Your task to perform on an android device: Show the shopping cart on walmart.com. Search for razer thresher on walmart.com, select the first entry, and add it to the cart. Image 0: 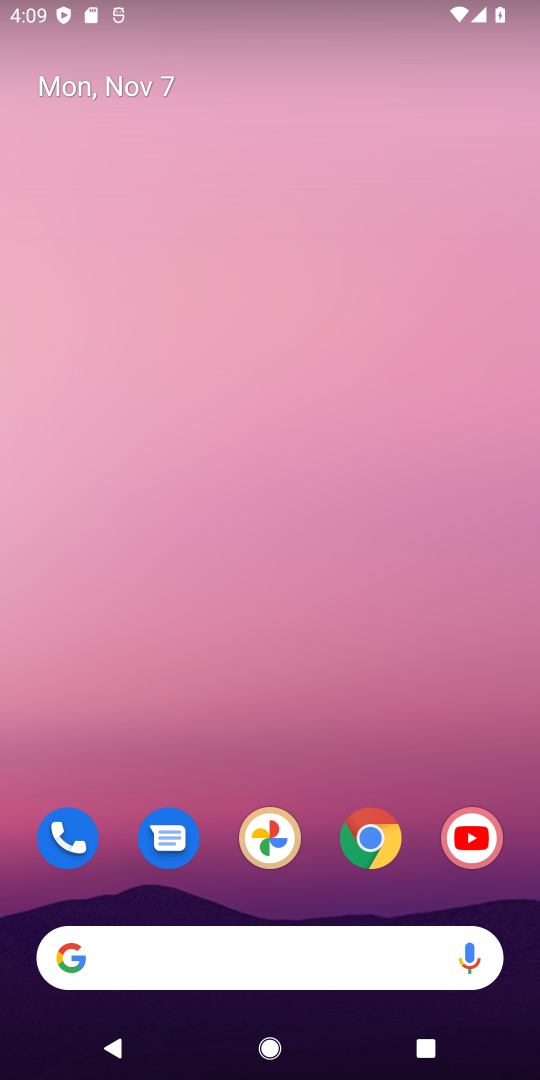
Step 0: click (377, 838)
Your task to perform on an android device: Show the shopping cart on walmart.com. Search for razer thresher on walmart.com, select the first entry, and add it to the cart. Image 1: 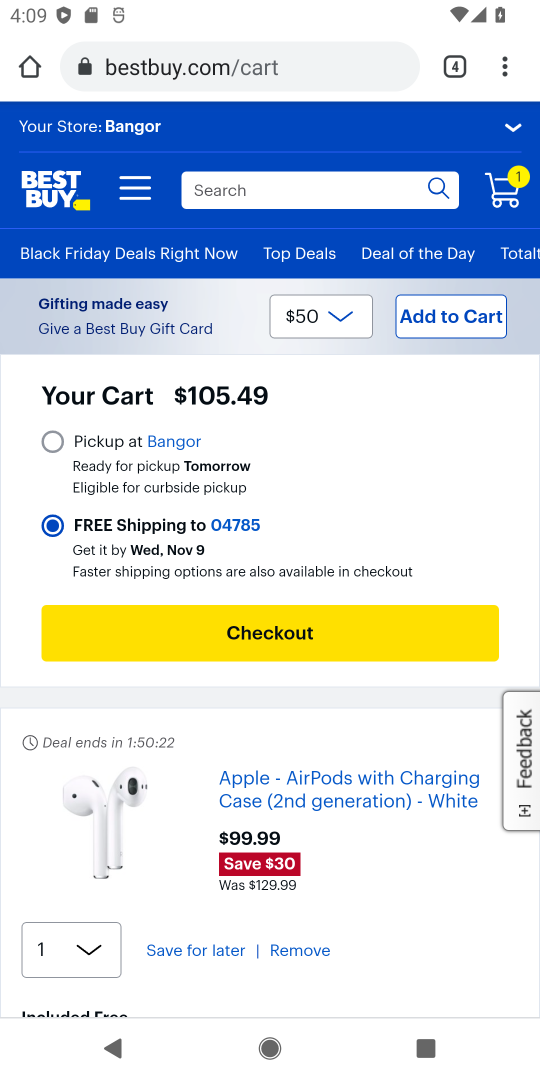
Step 1: click (453, 70)
Your task to perform on an android device: Show the shopping cart on walmart.com. Search for razer thresher on walmart.com, select the first entry, and add it to the cart. Image 2: 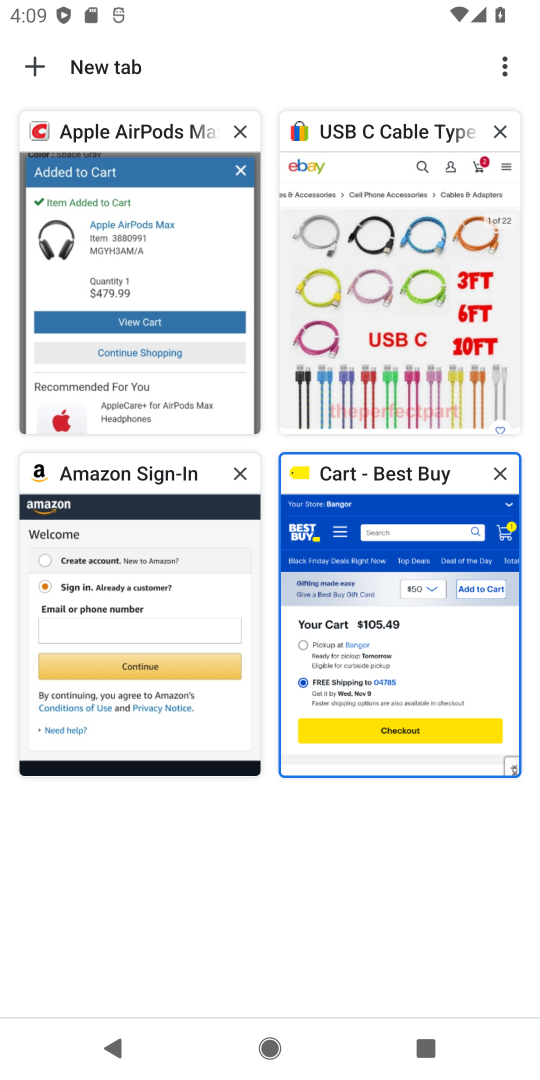
Step 2: click (39, 64)
Your task to perform on an android device: Show the shopping cart on walmart.com. Search for razer thresher on walmart.com, select the first entry, and add it to the cart. Image 3: 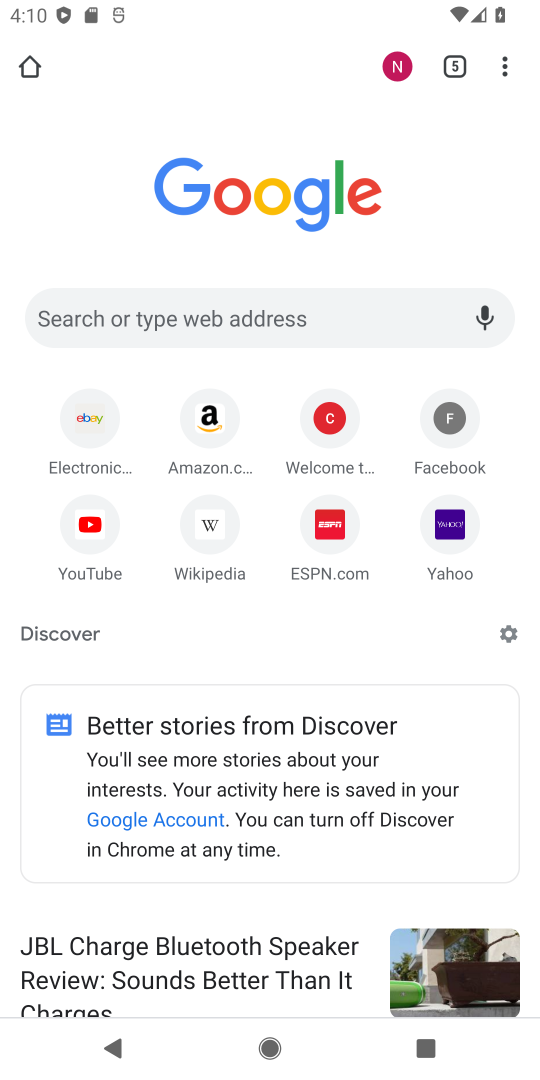
Step 3: click (78, 321)
Your task to perform on an android device: Show the shopping cart on walmart.com. Search for razer thresher on walmart.com, select the first entry, and add it to the cart. Image 4: 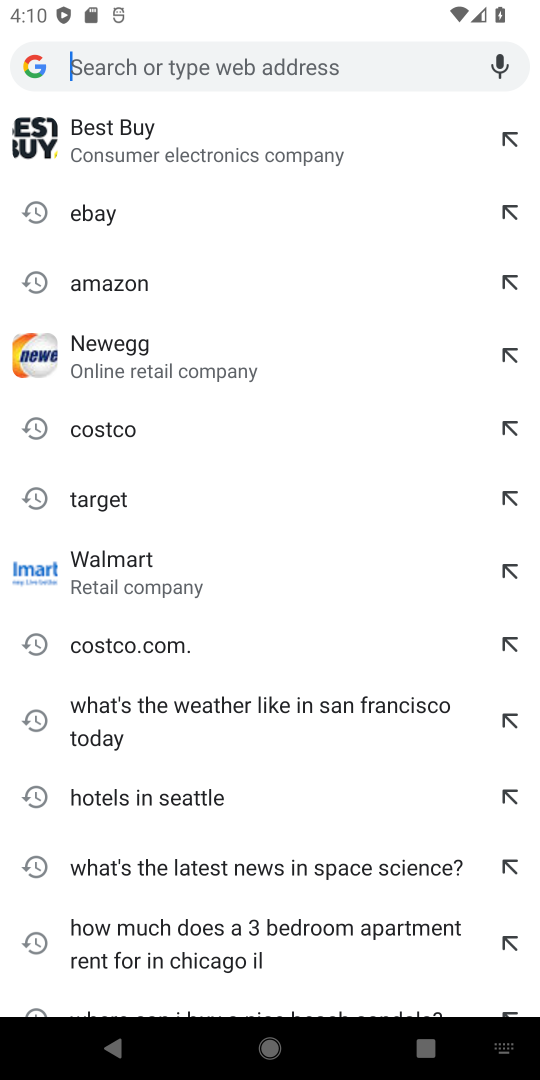
Step 4: type "walmart"
Your task to perform on an android device: Show the shopping cart on walmart.com. Search for razer thresher on walmart.com, select the first entry, and add it to the cart. Image 5: 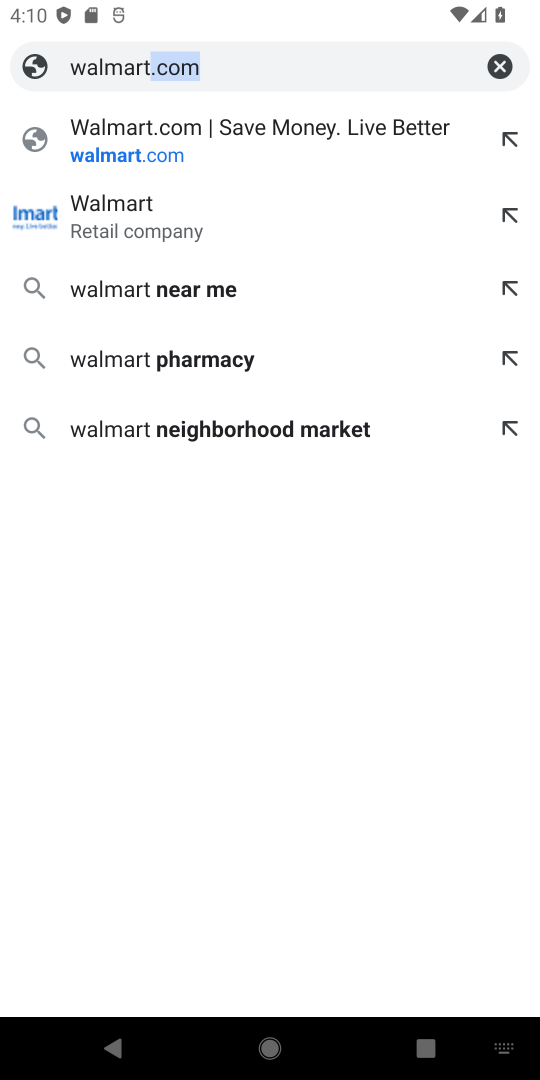
Step 5: click (188, 138)
Your task to perform on an android device: Show the shopping cart on walmart.com. Search for razer thresher on walmart.com, select the first entry, and add it to the cart. Image 6: 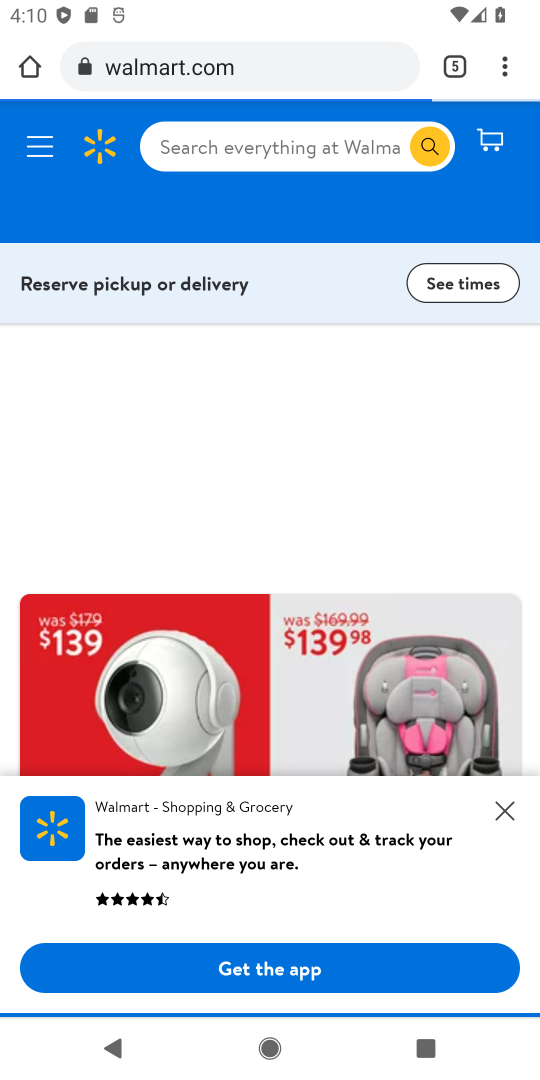
Step 6: click (279, 147)
Your task to perform on an android device: Show the shopping cart on walmart.com. Search for razer thresher on walmart.com, select the first entry, and add it to the cart. Image 7: 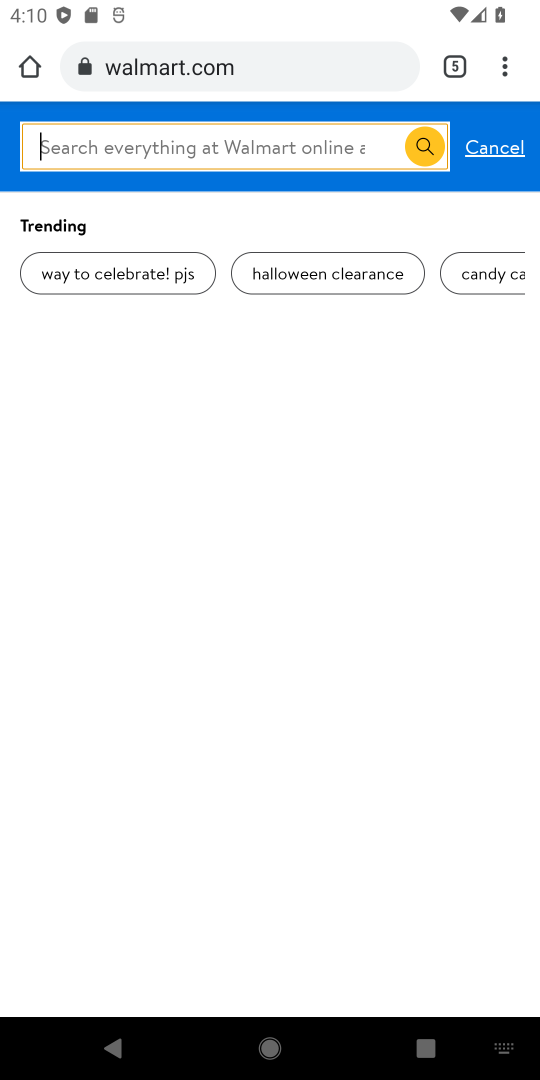
Step 7: type "razer thresher"
Your task to perform on an android device: Show the shopping cart on walmart.com. Search for razer thresher on walmart.com, select the first entry, and add it to the cart. Image 8: 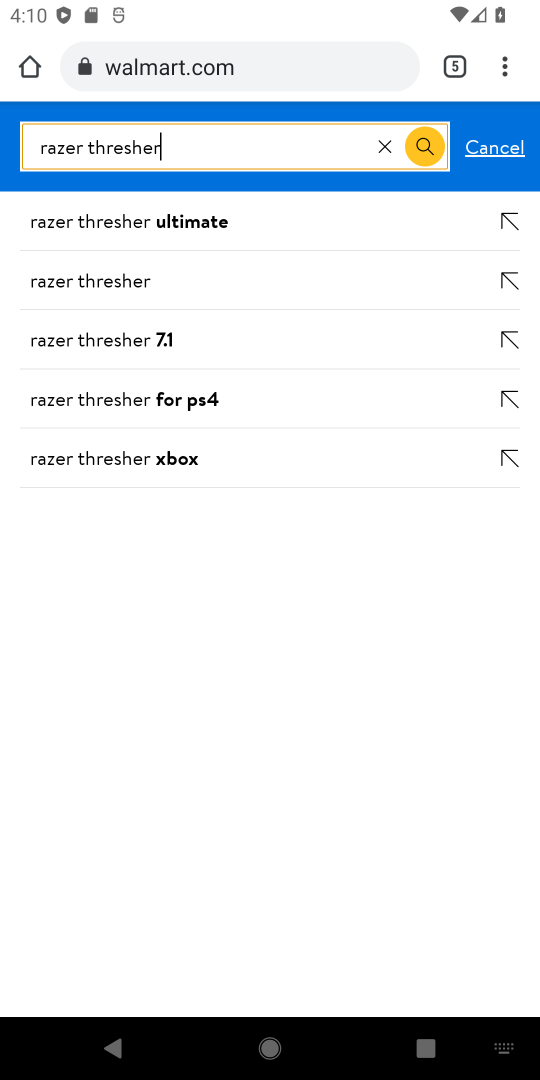
Step 8: click (202, 218)
Your task to perform on an android device: Show the shopping cart on walmart.com. Search for razer thresher on walmart.com, select the first entry, and add it to the cart. Image 9: 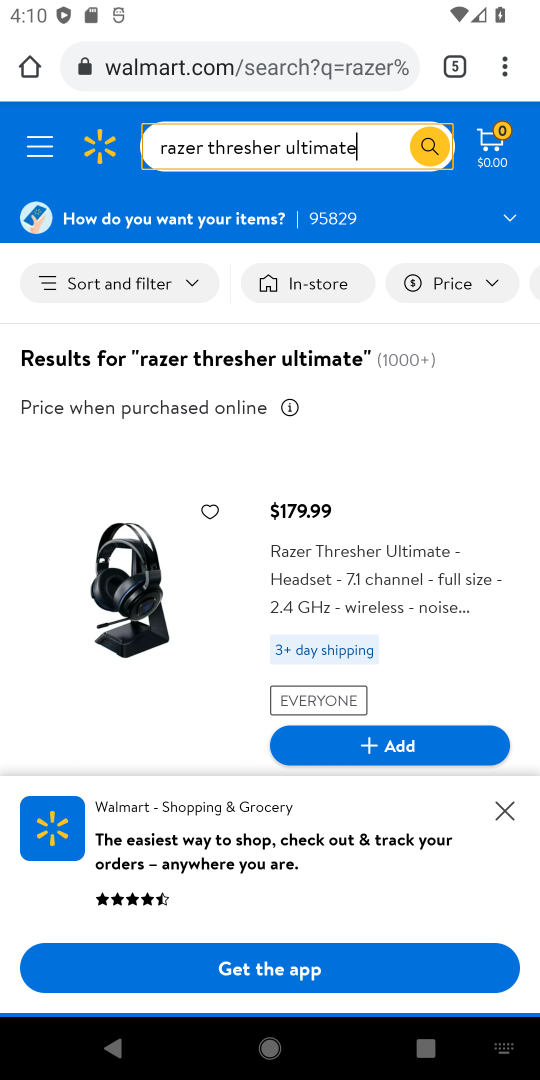
Step 9: click (503, 812)
Your task to perform on an android device: Show the shopping cart on walmart.com. Search for razer thresher on walmart.com, select the first entry, and add it to the cart. Image 10: 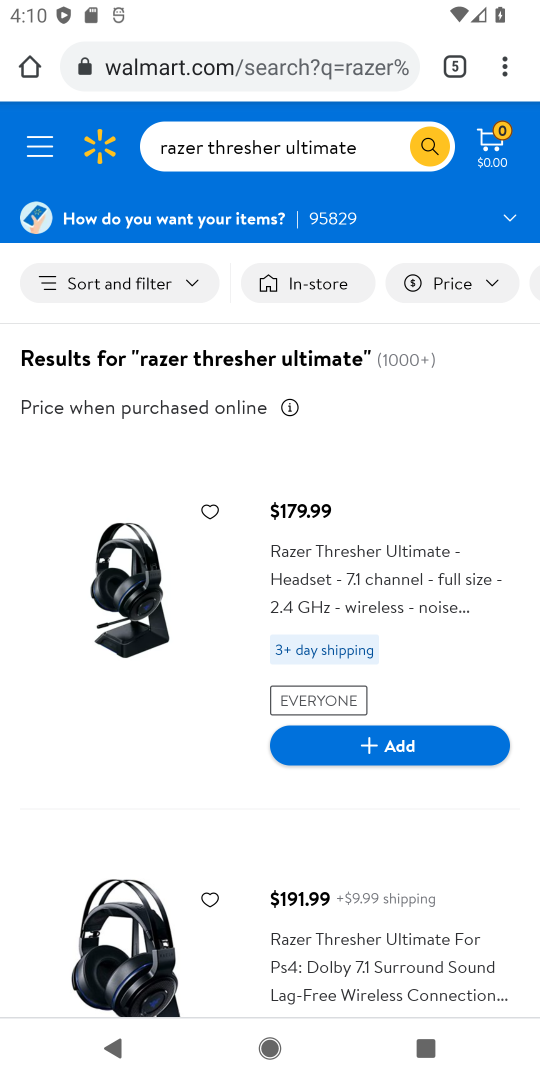
Step 10: click (414, 742)
Your task to perform on an android device: Show the shopping cart on walmart.com. Search for razer thresher on walmart.com, select the first entry, and add it to the cart. Image 11: 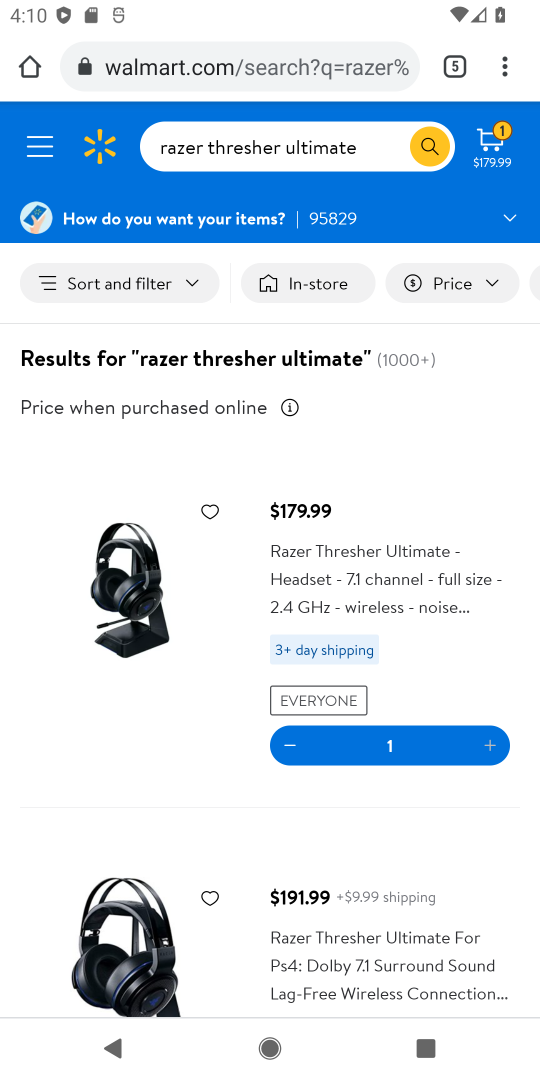
Step 11: task complete